Your task to perform on an android device: Show me recent news Image 0: 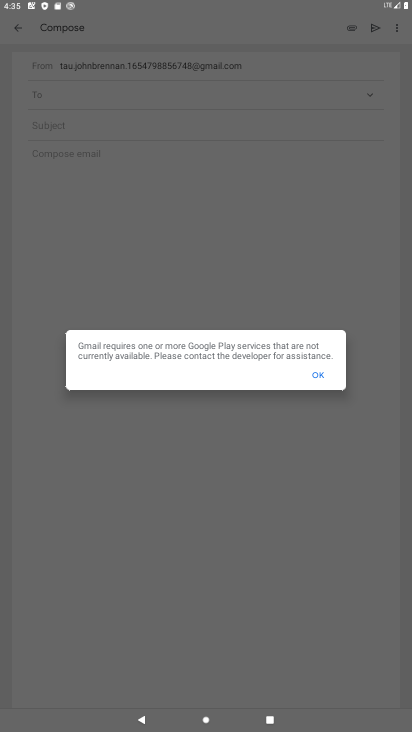
Step 0: click (319, 382)
Your task to perform on an android device: Show me recent news Image 1: 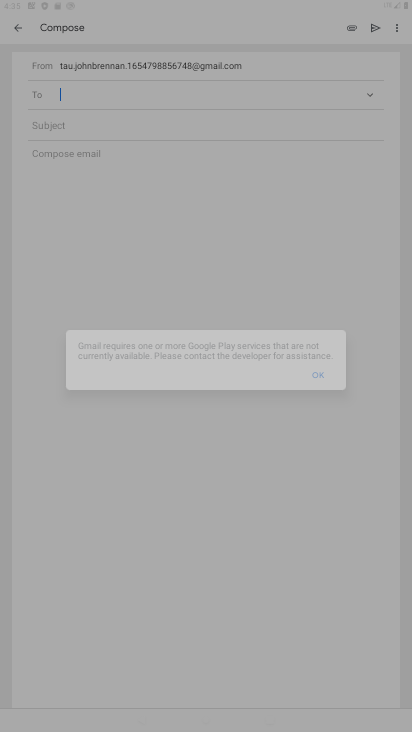
Step 1: click (323, 381)
Your task to perform on an android device: Show me recent news Image 2: 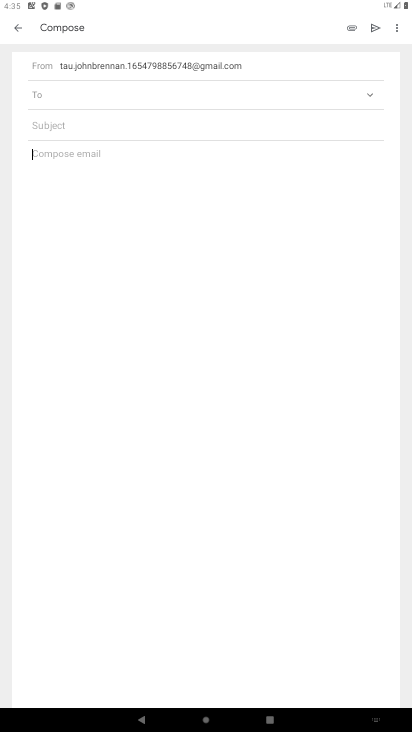
Step 2: click (20, 23)
Your task to perform on an android device: Show me recent news Image 3: 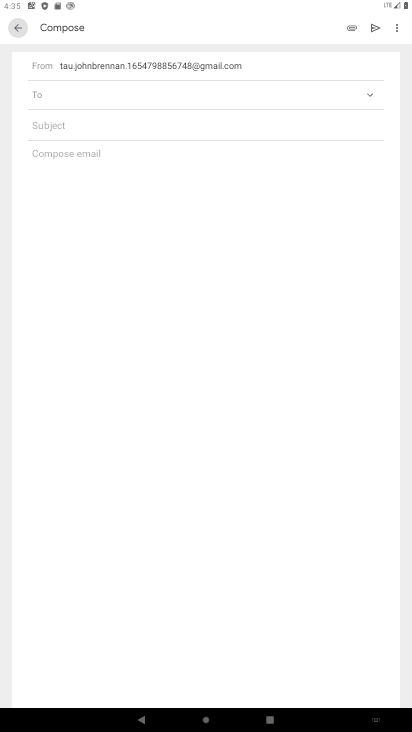
Step 3: click (20, 23)
Your task to perform on an android device: Show me recent news Image 4: 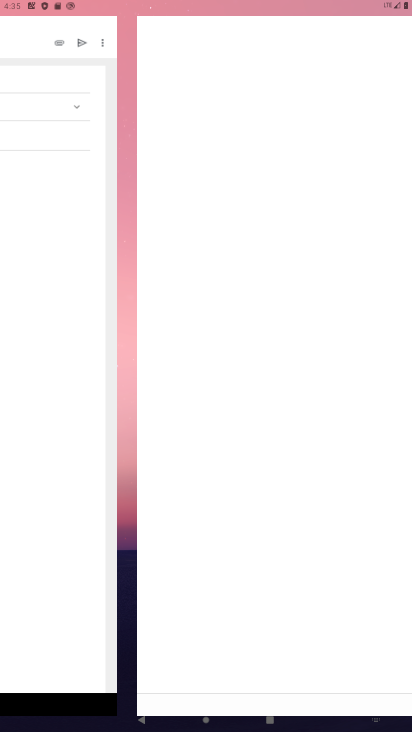
Step 4: click (20, 23)
Your task to perform on an android device: Show me recent news Image 5: 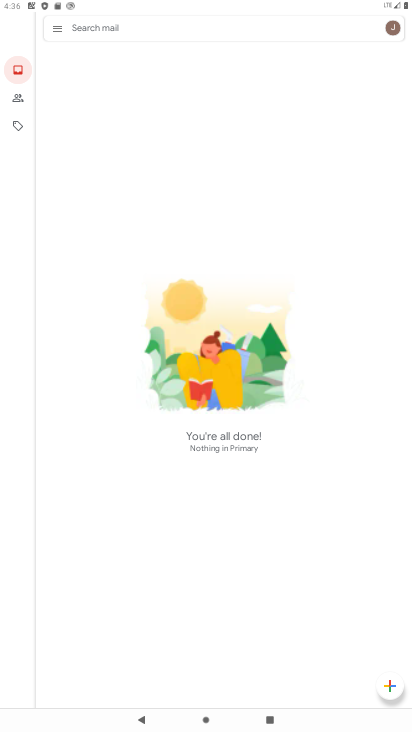
Step 5: click (39, 33)
Your task to perform on an android device: Show me recent news Image 6: 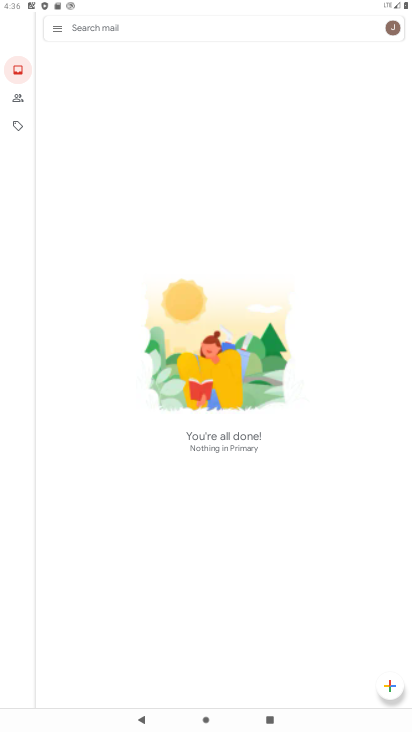
Step 6: click (53, 31)
Your task to perform on an android device: Show me recent news Image 7: 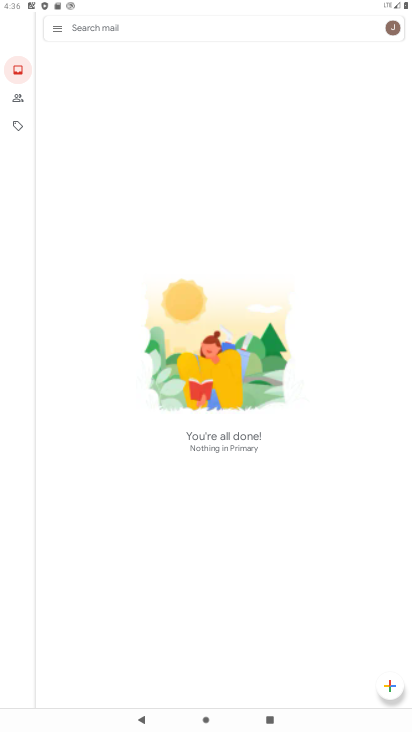
Step 7: click (53, 31)
Your task to perform on an android device: Show me recent news Image 8: 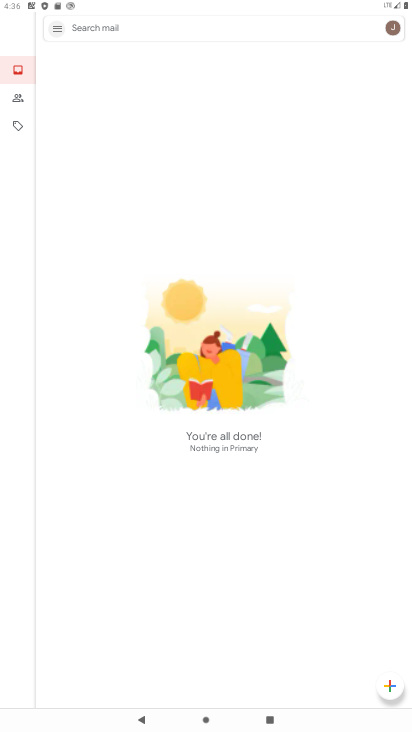
Step 8: click (54, 31)
Your task to perform on an android device: Show me recent news Image 9: 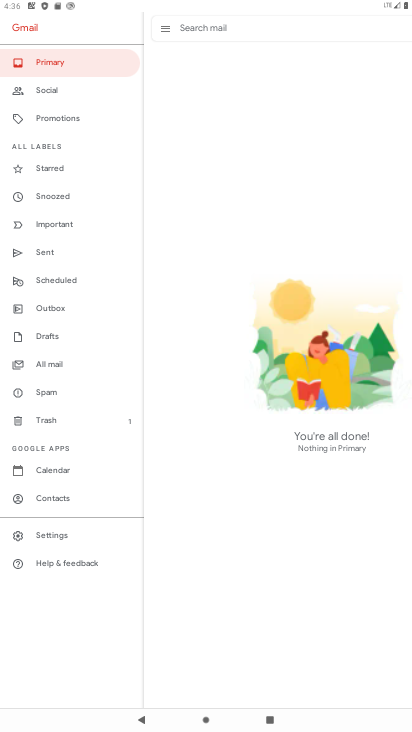
Step 9: click (58, 27)
Your task to perform on an android device: Show me recent news Image 10: 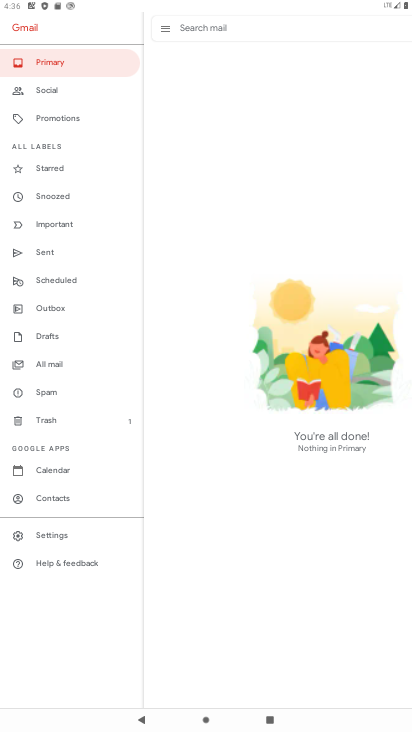
Step 10: click (67, 25)
Your task to perform on an android device: Show me recent news Image 11: 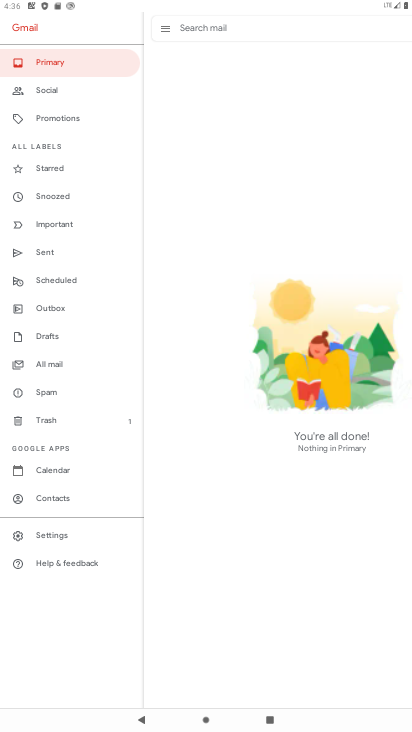
Step 11: press back button
Your task to perform on an android device: Show me recent news Image 12: 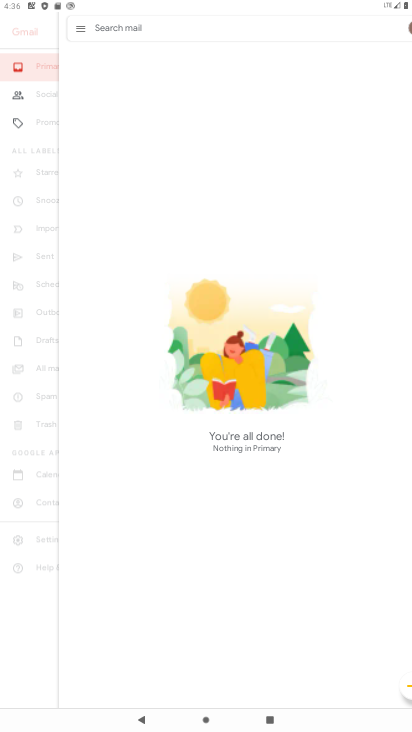
Step 12: press back button
Your task to perform on an android device: Show me recent news Image 13: 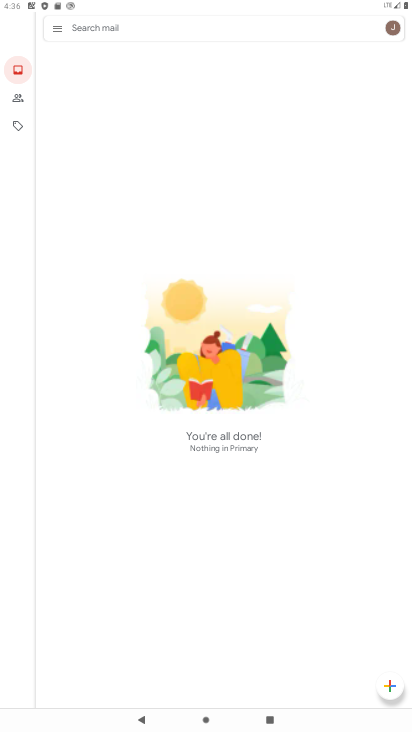
Step 13: press back button
Your task to perform on an android device: Show me recent news Image 14: 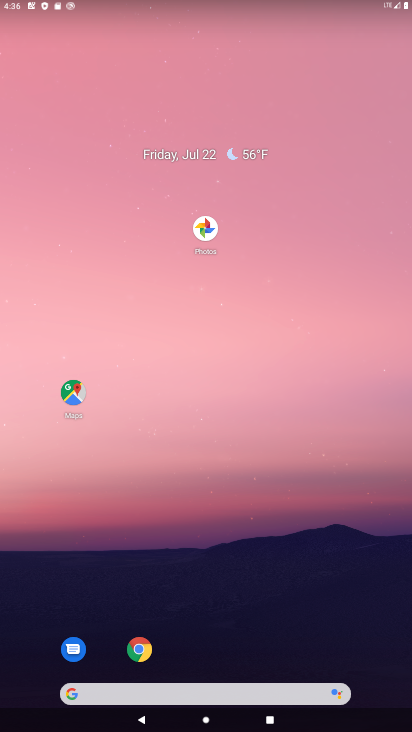
Step 14: drag from (148, 543) to (109, 11)
Your task to perform on an android device: Show me recent news Image 15: 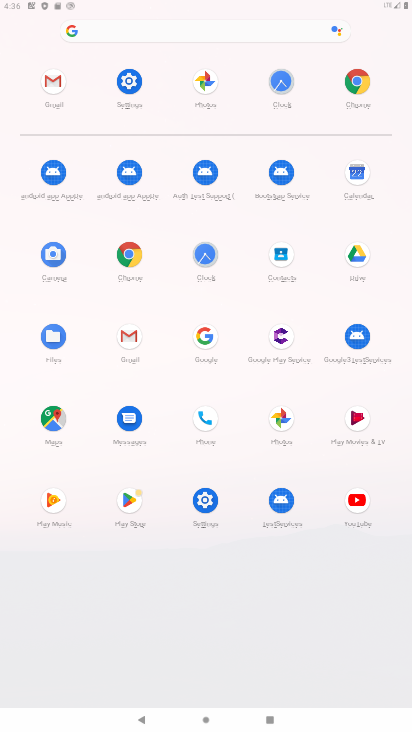
Step 15: drag from (118, 50) to (156, 111)
Your task to perform on an android device: Show me recent news Image 16: 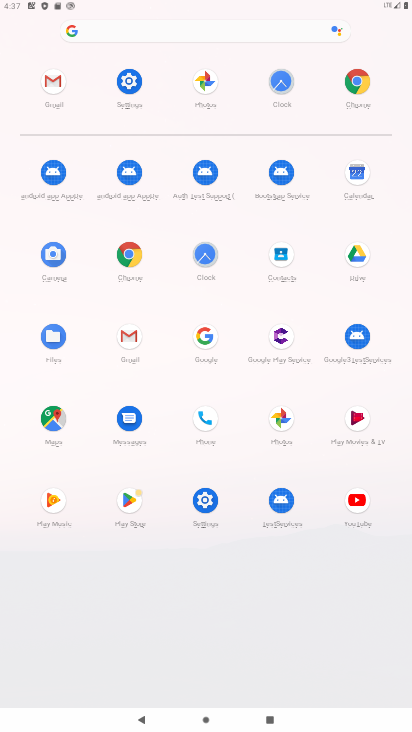
Step 16: click (365, 94)
Your task to perform on an android device: Show me recent news Image 17: 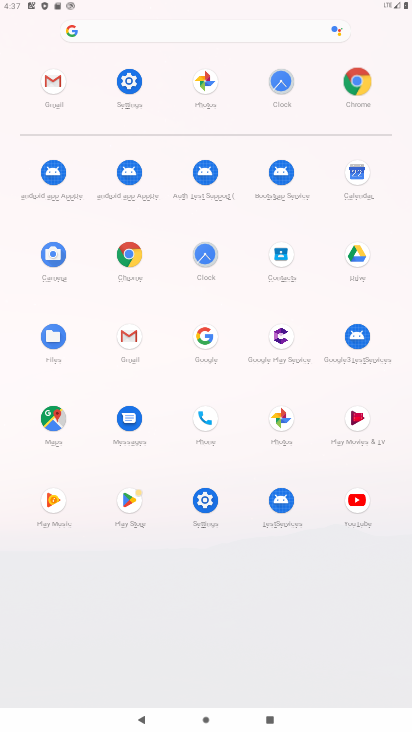
Step 17: click (365, 89)
Your task to perform on an android device: Show me recent news Image 18: 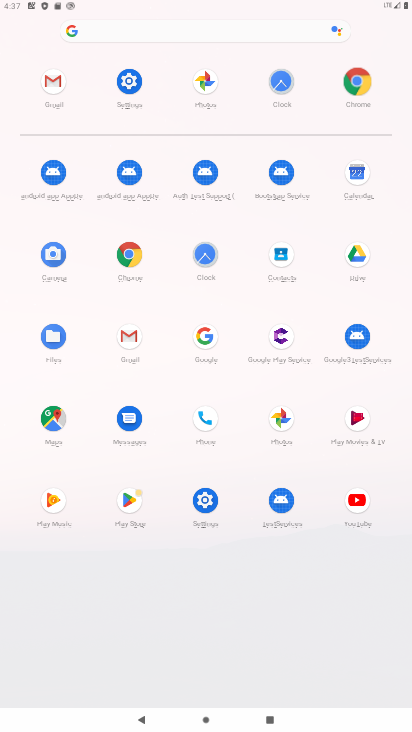
Step 18: click (365, 89)
Your task to perform on an android device: Show me recent news Image 19: 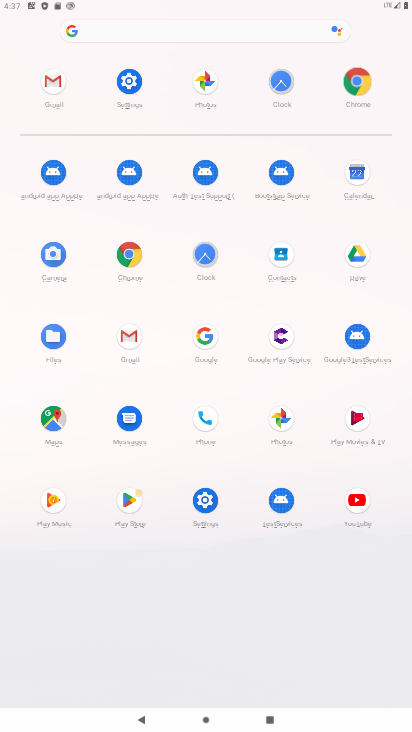
Step 19: click (365, 88)
Your task to perform on an android device: Show me recent news Image 20: 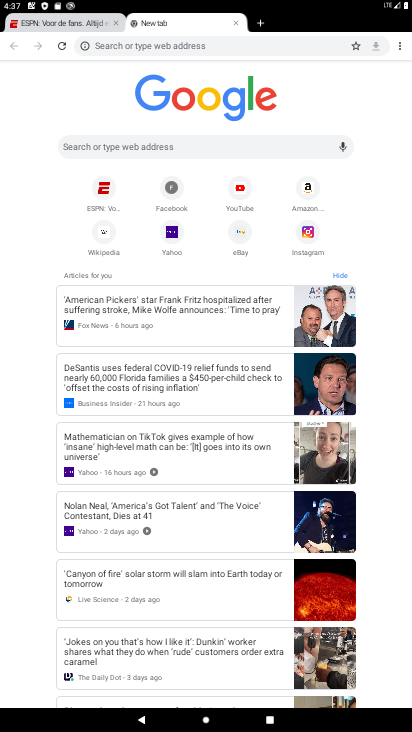
Step 20: click (362, 95)
Your task to perform on an android device: Show me recent news Image 21: 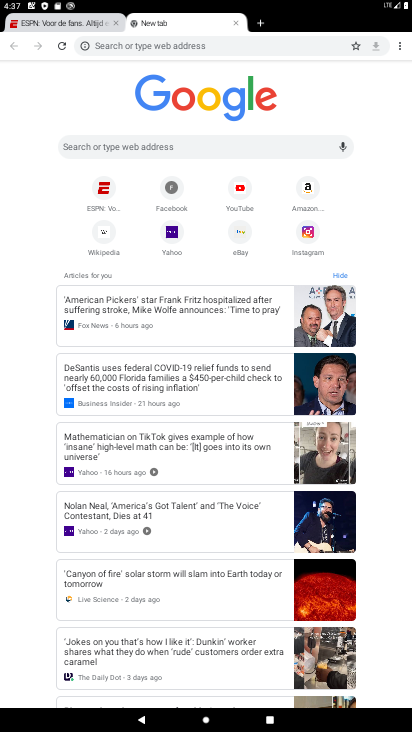
Step 21: task complete